Your task to perform on an android device: turn off javascript in the chrome app Image 0: 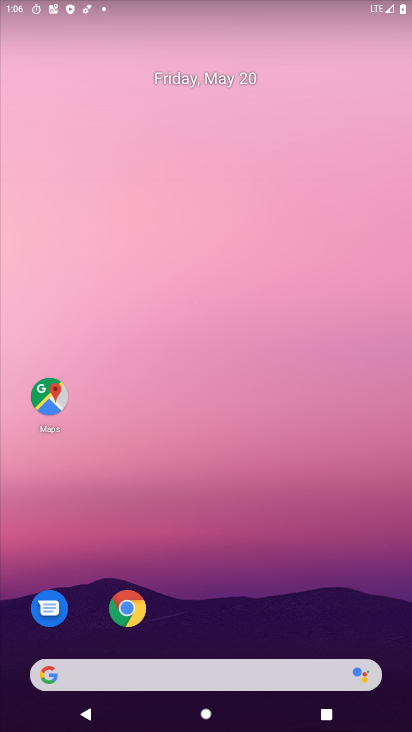
Step 0: drag from (318, 549) to (307, 78)
Your task to perform on an android device: turn off javascript in the chrome app Image 1: 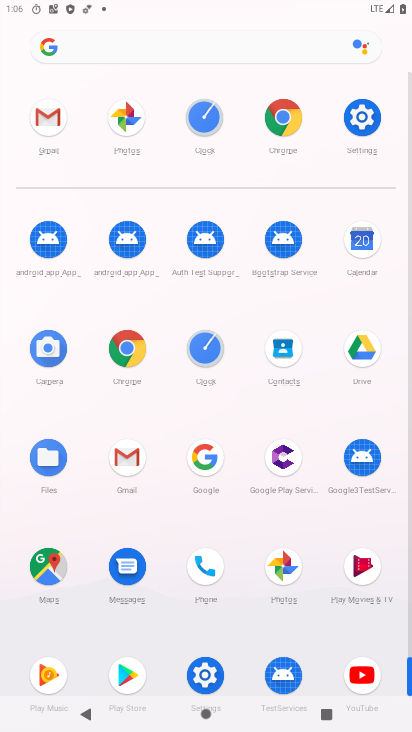
Step 1: click (136, 360)
Your task to perform on an android device: turn off javascript in the chrome app Image 2: 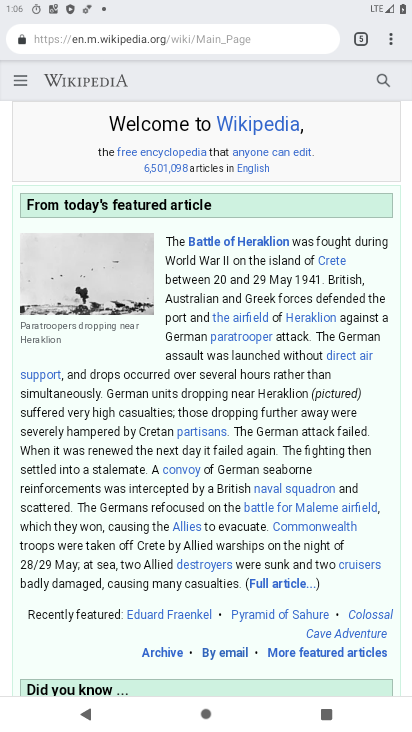
Step 2: click (393, 45)
Your task to perform on an android device: turn off javascript in the chrome app Image 3: 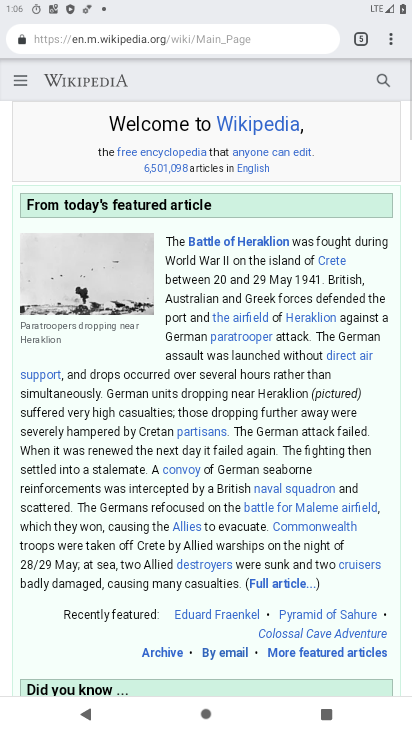
Step 3: drag from (393, 46) to (286, 465)
Your task to perform on an android device: turn off javascript in the chrome app Image 4: 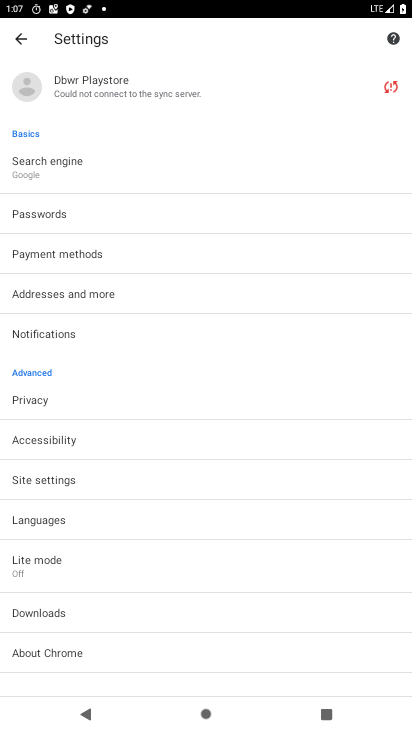
Step 4: click (79, 483)
Your task to perform on an android device: turn off javascript in the chrome app Image 5: 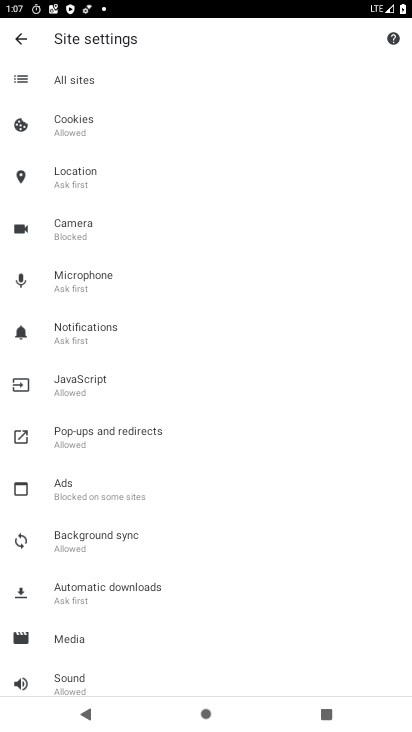
Step 5: click (106, 382)
Your task to perform on an android device: turn off javascript in the chrome app Image 6: 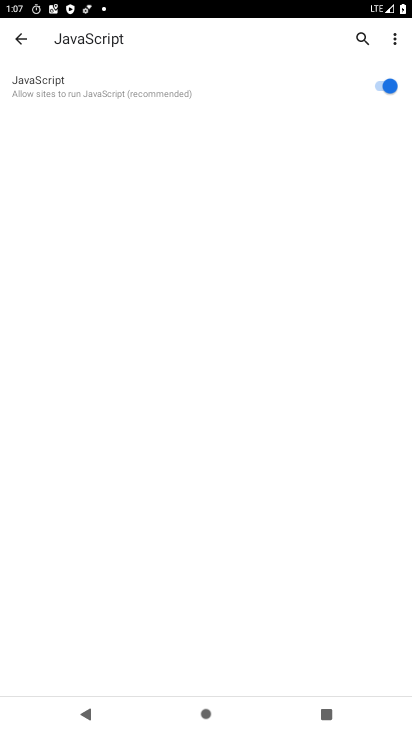
Step 6: click (383, 85)
Your task to perform on an android device: turn off javascript in the chrome app Image 7: 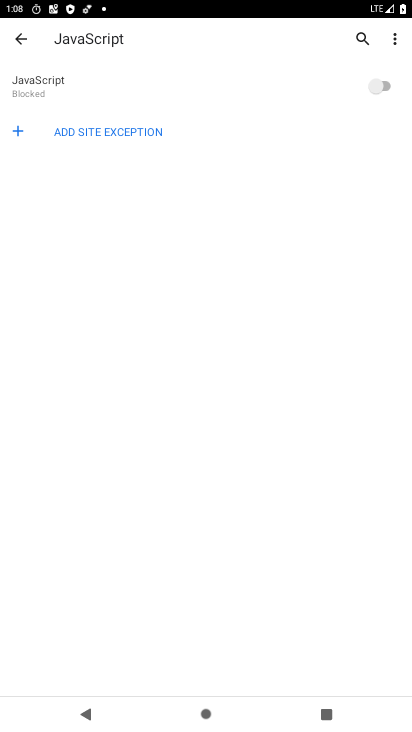
Step 7: task complete